Your task to perform on an android device: Play the last video I watched on Youtube Image 0: 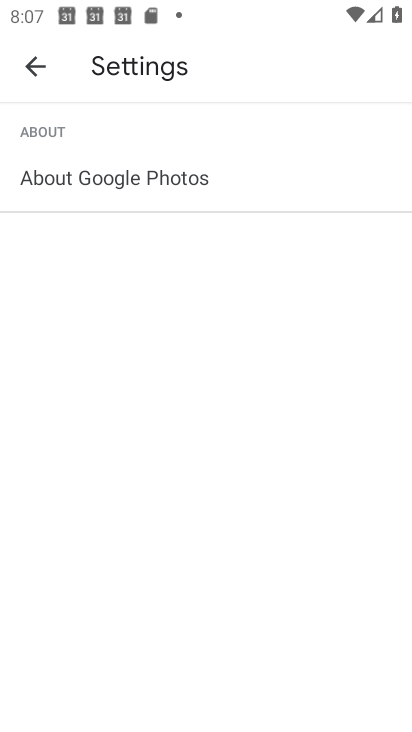
Step 0: press home button
Your task to perform on an android device: Play the last video I watched on Youtube Image 1: 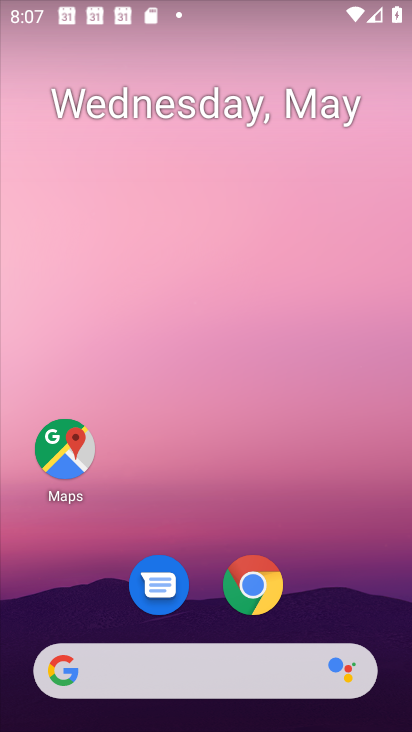
Step 1: drag from (322, 584) to (310, 149)
Your task to perform on an android device: Play the last video I watched on Youtube Image 2: 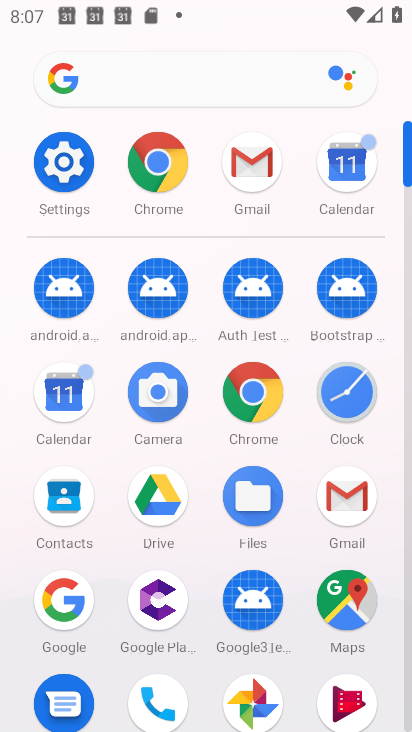
Step 2: drag from (297, 459) to (301, 53)
Your task to perform on an android device: Play the last video I watched on Youtube Image 3: 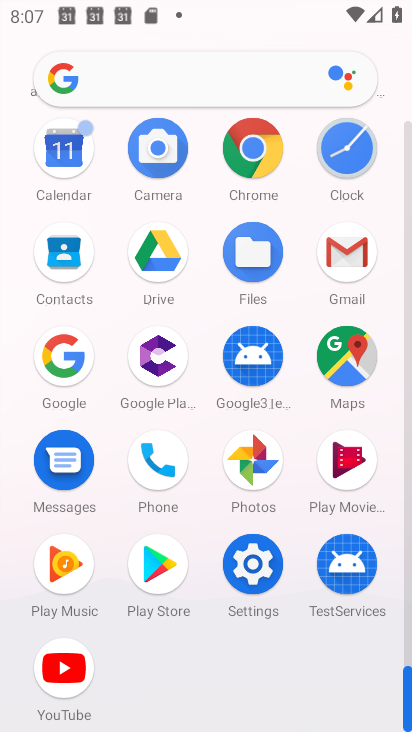
Step 3: click (51, 665)
Your task to perform on an android device: Play the last video I watched on Youtube Image 4: 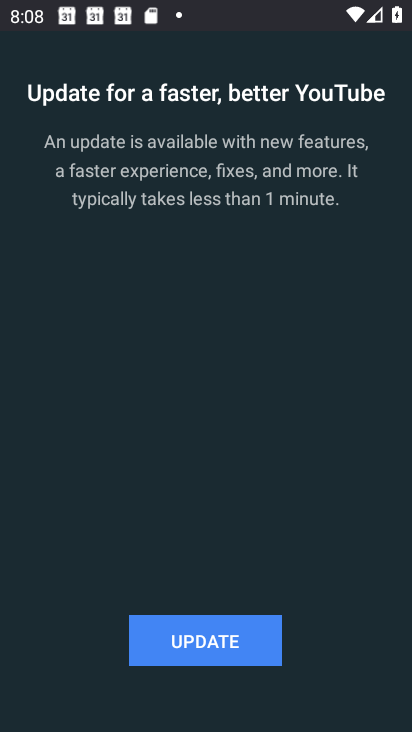
Step 4: click (230, 638)
Your task to perform on an android device: Play the last video I watched on Youtube Image 5: 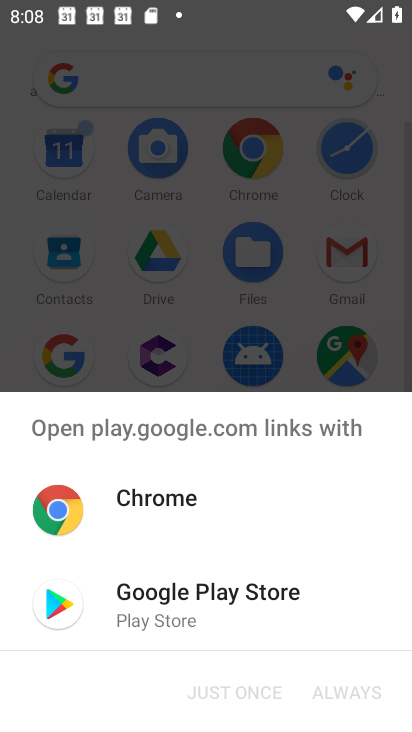
Step 5: click (170, 593)
Your task to perform on an android device: Play the last video I watched on Youtube Image 6: 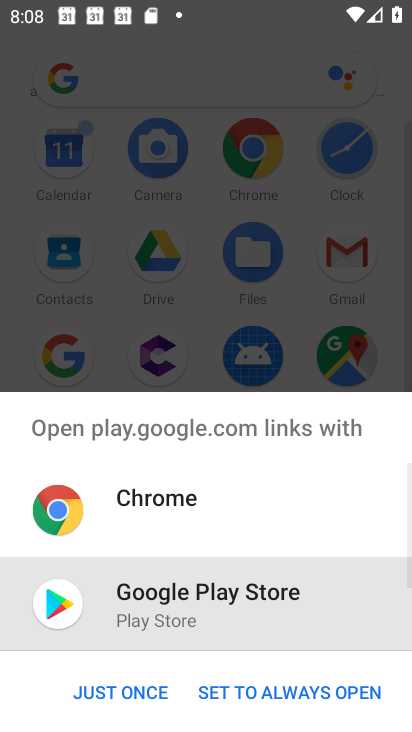
Step 6: click (138, 683)
Your task to perform on an android device: Play the last video I watched on Youtube Image 7: 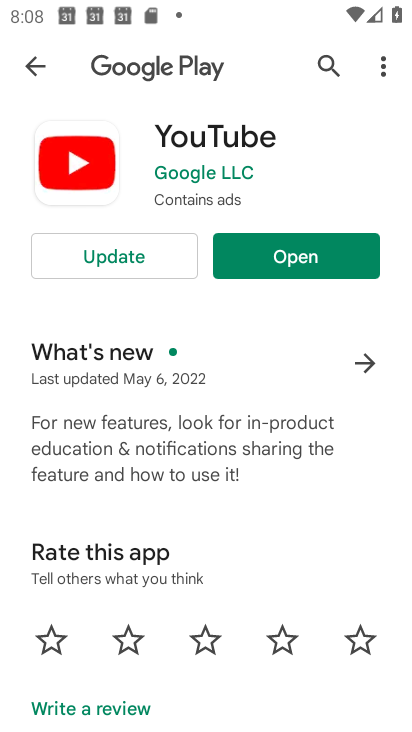
Step 7: click (174, 257)
Your task to perform on an android device: Play the last video I watched on Youtube Image 8: 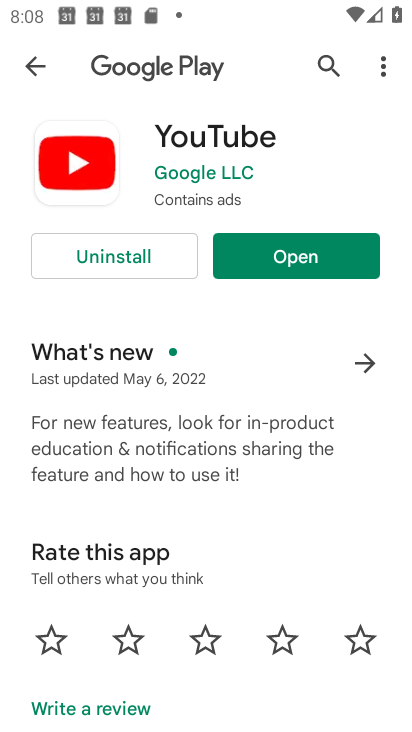
Step 8: click (329, 261)
Your task to perform on an android device: Play the last video I watched on Youtube Image 9: 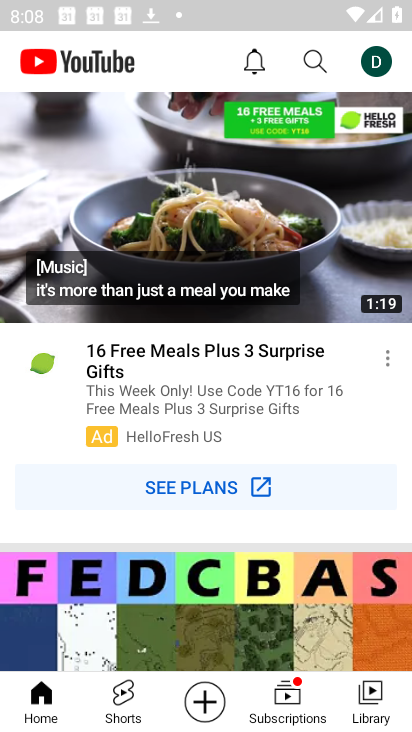
Step 9: click (375, 56)
Your task to perform on an android device: Play the last video I watched on Youtube Image 10: 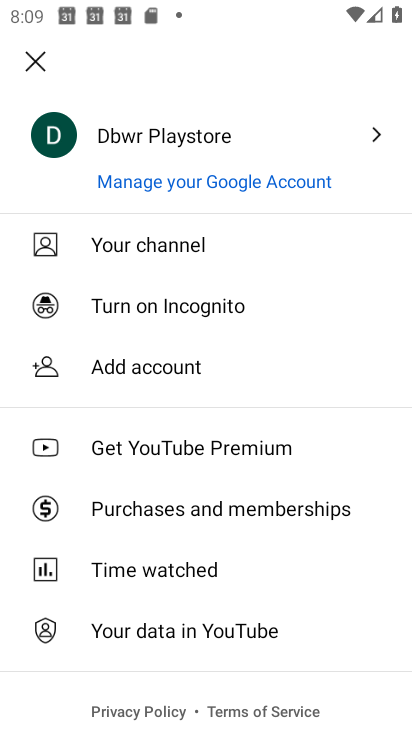
Step 10: click (36, 51)
Your task to perform on an android device: Play the last video I watched on Youtube Image 11: 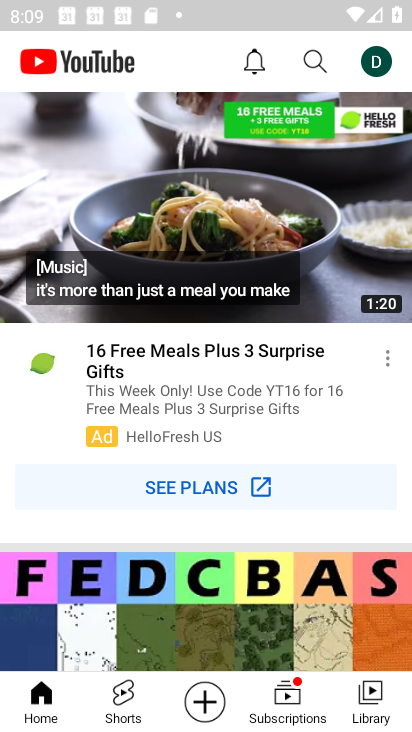
Step 11: click (372, 698)
Your task to perform on an android device: Play the last video I watched on Youtube Image 12: 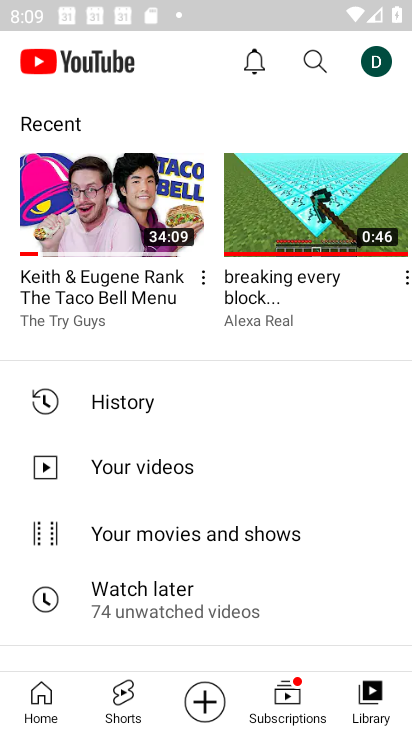
Step 12: click (136, 403)
Your task to perform on an android device: Play the last video I watched on Youtube Image 13: 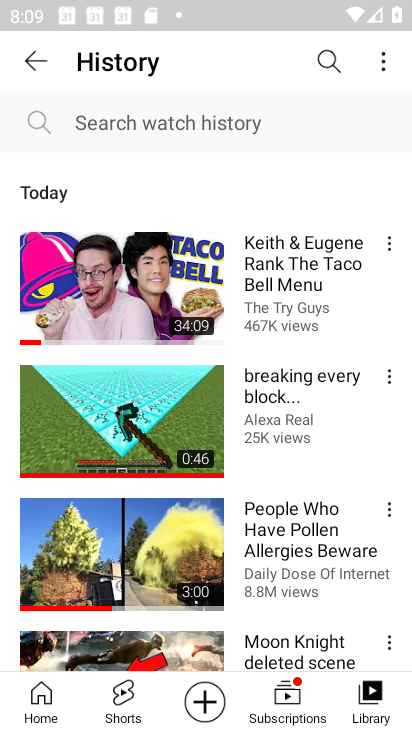
Step 13: click (126, 304)
Your task to perform on an android device: Play the last video I watched on Youtube Image 14: 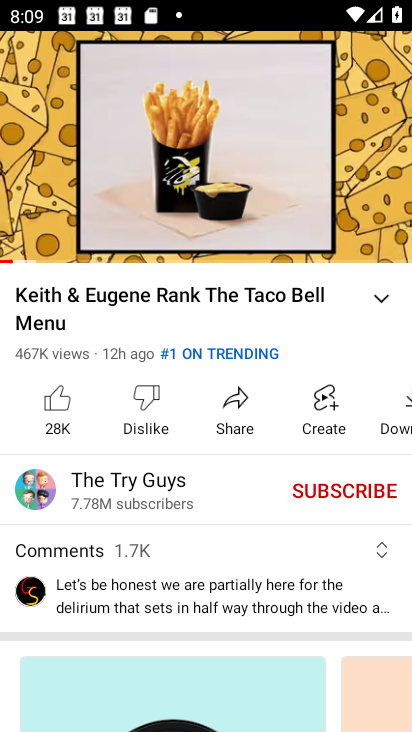
Step 14: task complete